Your task to perform on an android device: change the clock display to analog Image 0: 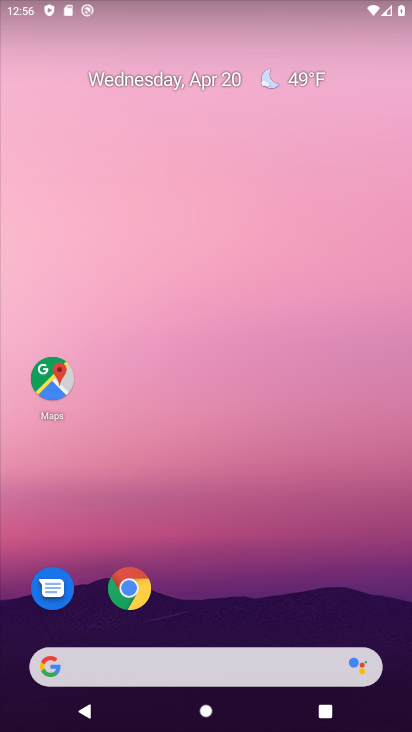
Step 0: drag from (150, 661) to (282, 93)
Your task to perform on an android device: change the clock display to analog Image 1: 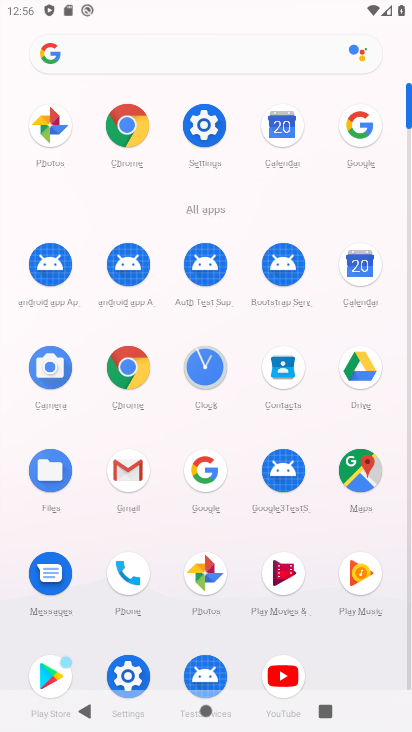
Step 1: click (213, 371)
Your task to perform on an android device: change the clock display to analog Image 2: 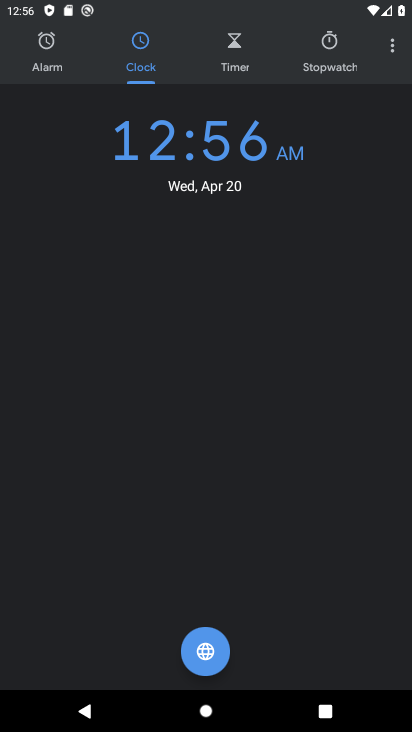
Step 2: click (394, 49)
Your task to perform on an android device: change the clock display to analog Image 3: 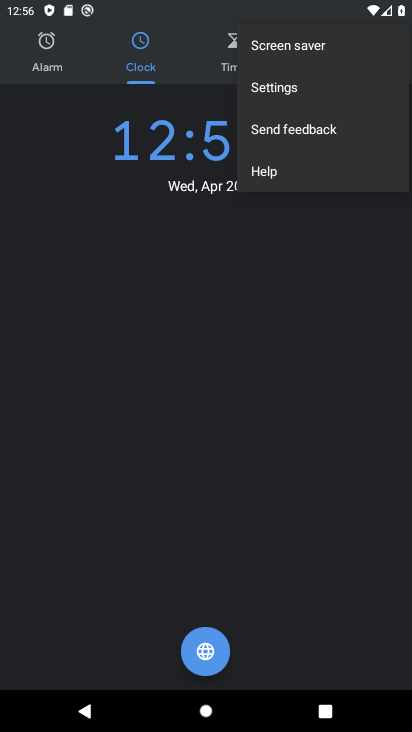
Step 3: click (294, 91)
Your task to perform on an android device: change the clock display to analog Image 4: 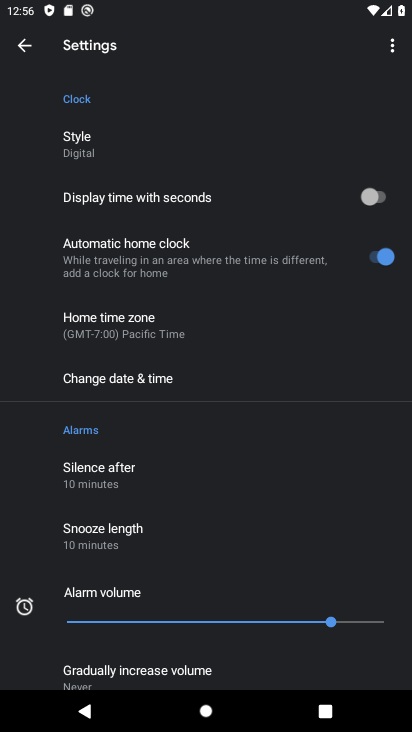
Step 4: click (72, 140)
Your task to perform on an android device: change the clock display to analog Image 5: 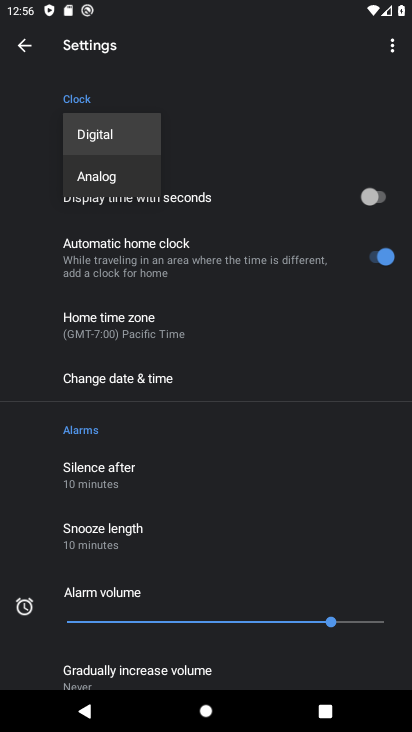
Step 5: click (107, 179)
Your task to perform on an android device: change the clock display to analog Image 6: 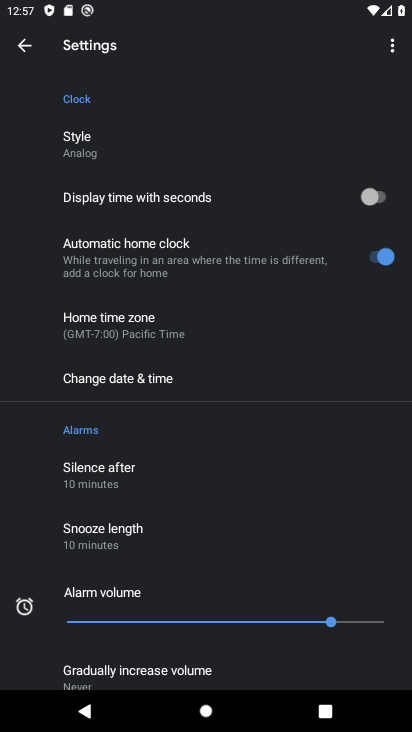
Step 6: task complete